Your task to perform on an android device: Open display settings Image 0: 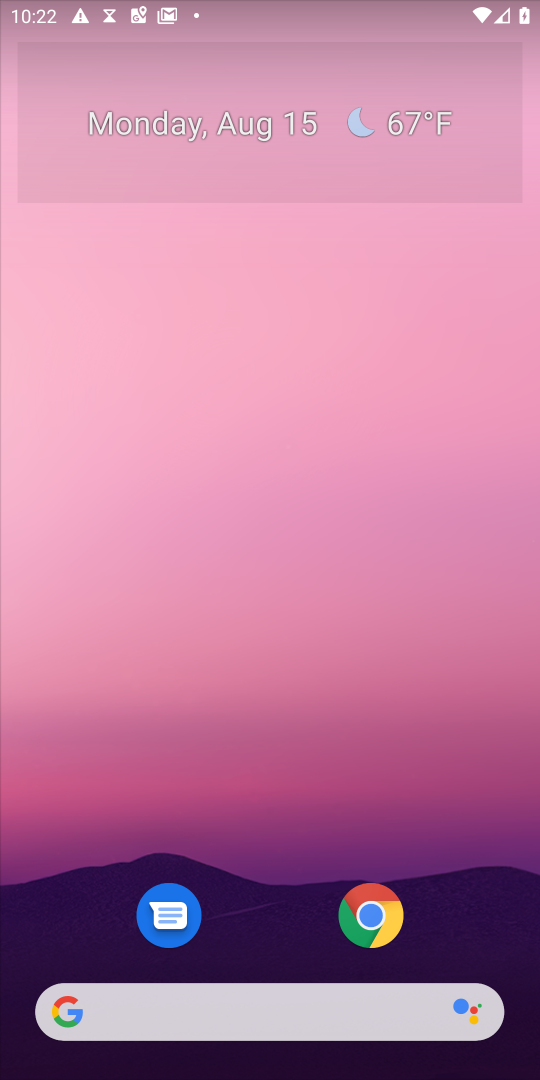
Step 0: press home button
Your task to perform on an android device: Open display settings Image 1: 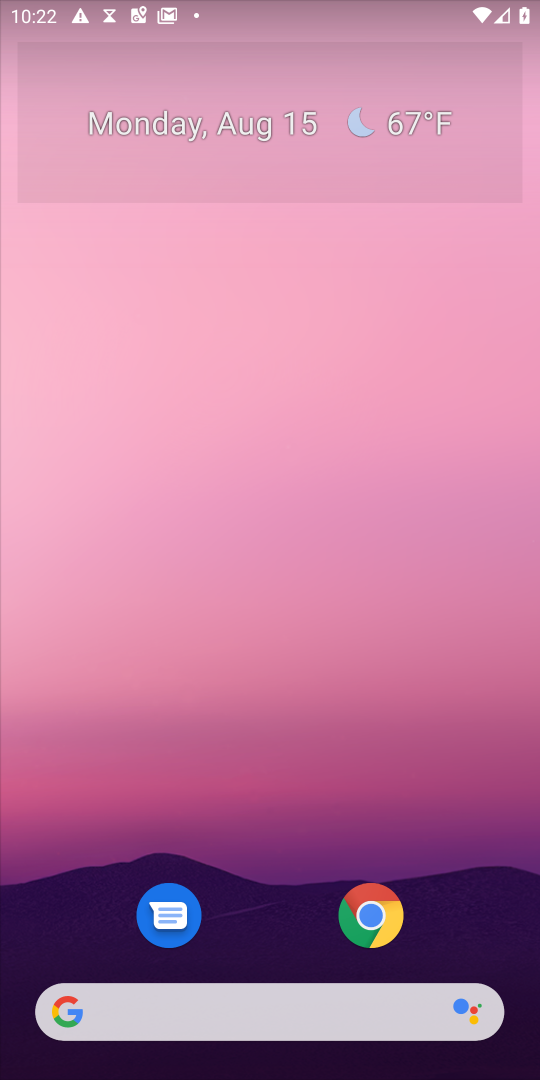
Step 1: drag from (295, 927) to (265, 191)
Your task to perform on an android device: Open display settings Image 2: 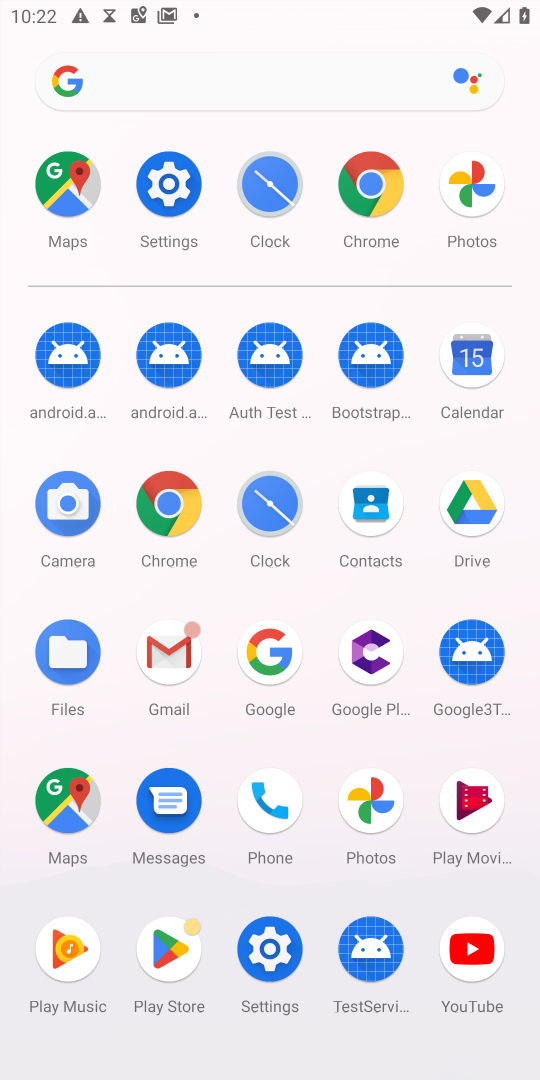
Step 2: click (167, 181)
Your task to perform on an android device: Open display settings Image 3: 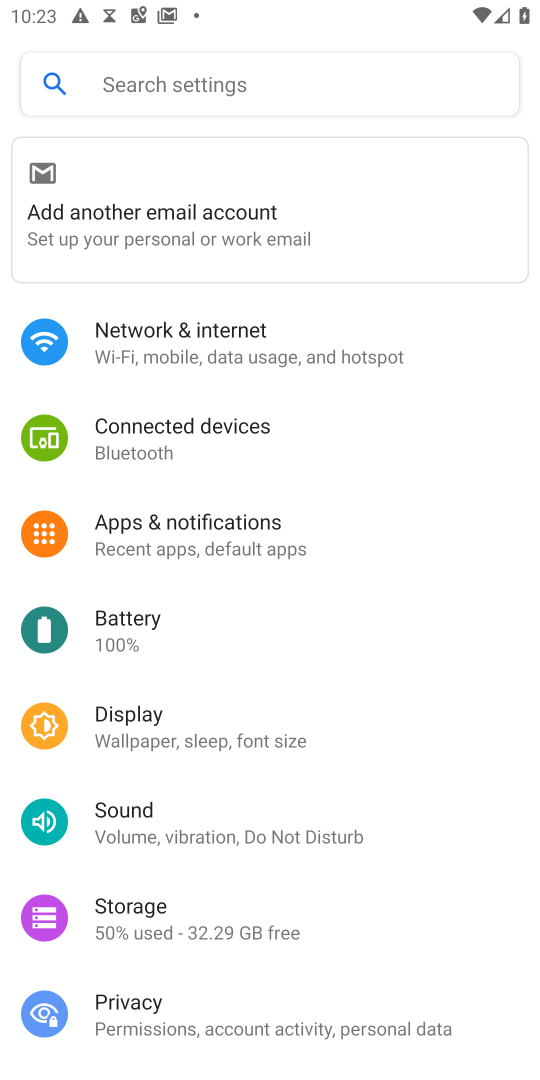
Step 3: click (126, 723)
Your task to perform on an android device: Open display settings Image 4: 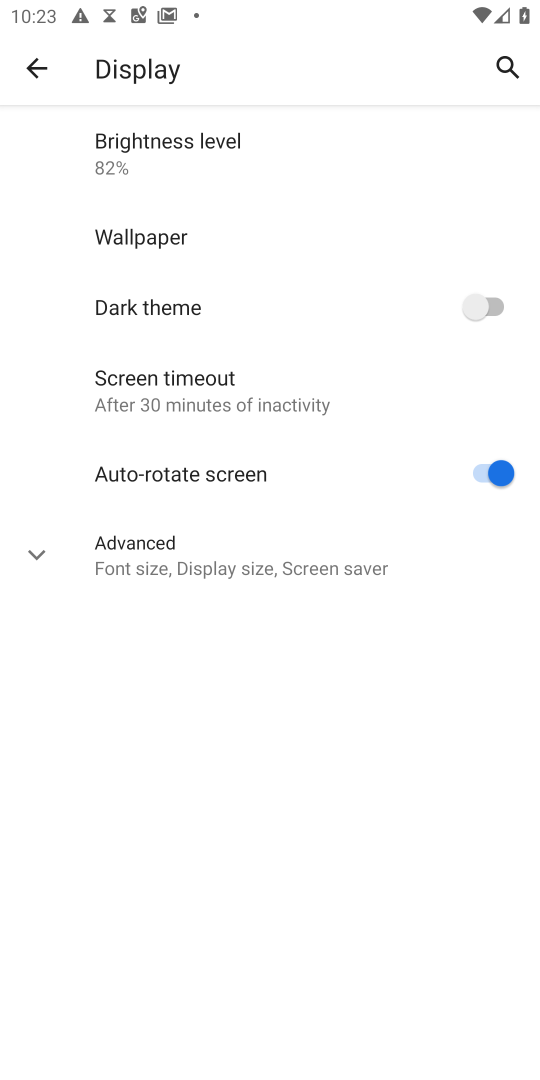
Step 4: task complete